Your task to perform on an android device: Open Google Chrome Image 0: 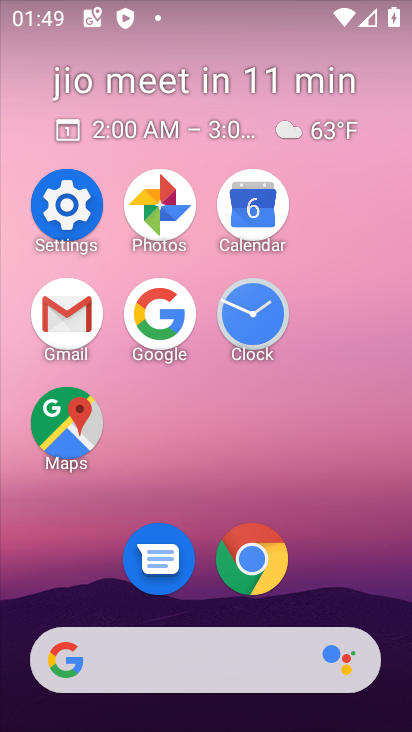
Step 0: click (256, 567)
Your task to perform on an android device: Open Google Chrome Image 1: 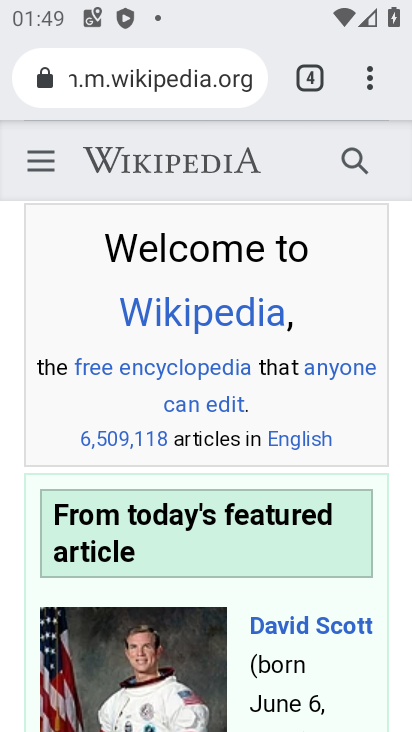
Step 1: task complete